Your task to perform on an android device: open app "Skype" (install if not already installed) Image 0: 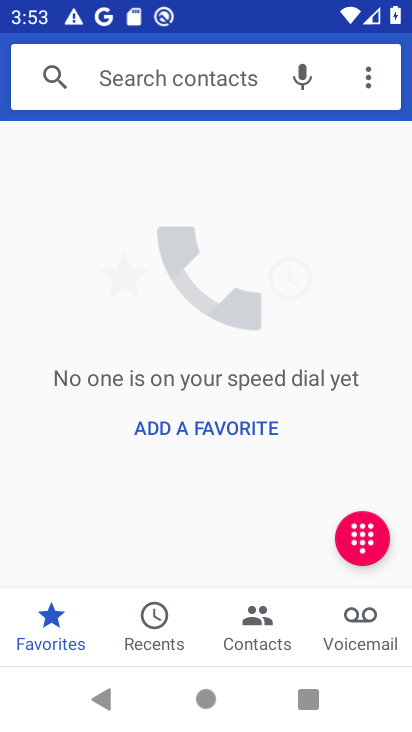
Step 0: task complete